Your task to perform on an android device: Open calendar and show me the second week of next month Image 0: 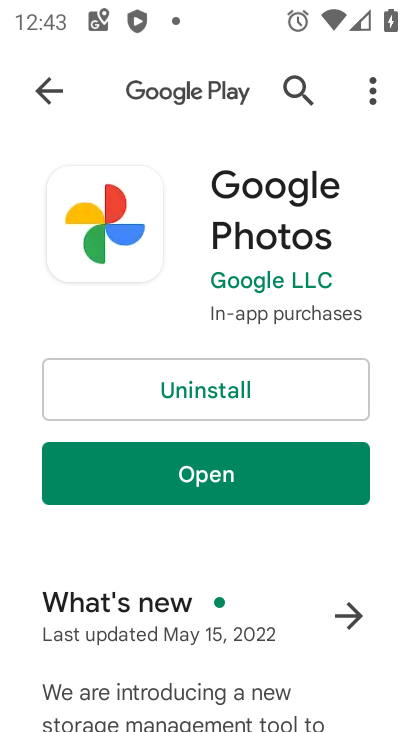
Step 0: press home button
Your task to perform on an android device: Open calendar and show me the second week of next month Image 1: 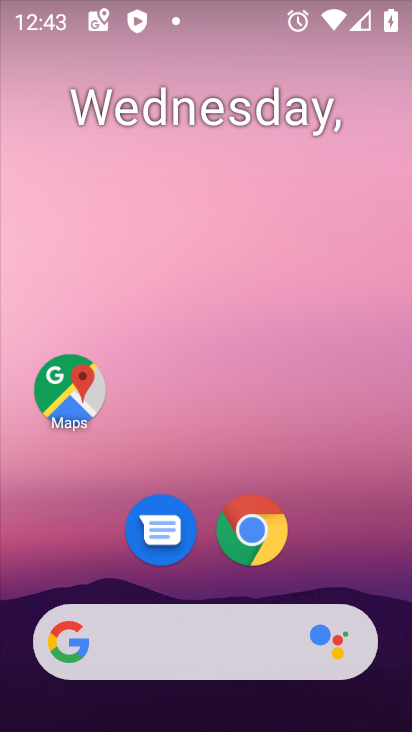
Step 1: drag from (207, 567) to (250, 206)
Your task to perform on an android device: Open calendar and show me the second week of next month Image 2: 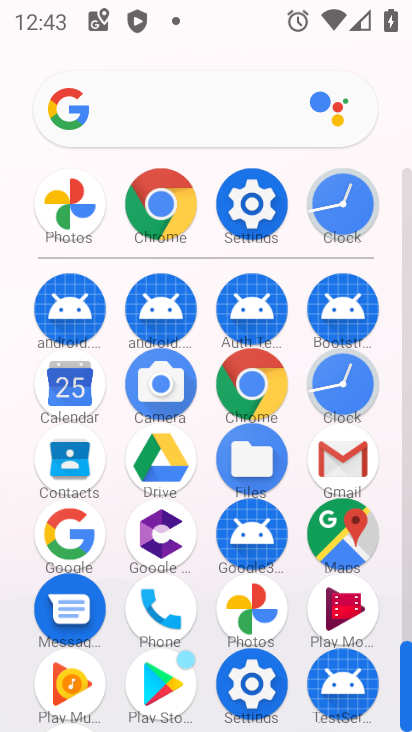
Step 2: click (69, 377)
Your task to perform on an android device: Open calendar and show me the second week of next month Image 3: 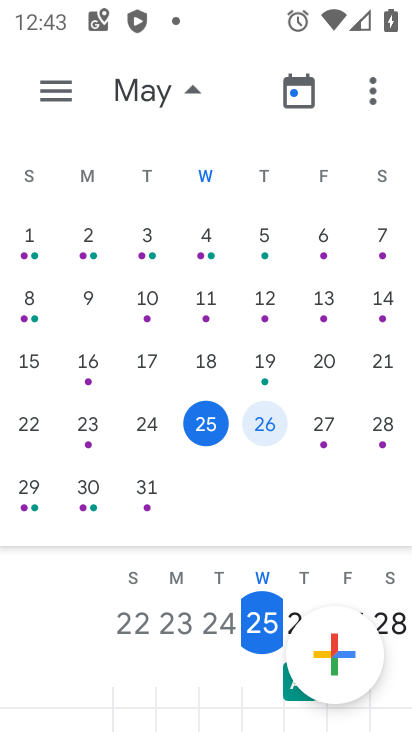
Step 3: drag from (392, 281) to (5, 277)
Your task to perform on an android device: Open calendar and show me the second week of next month Image 4: 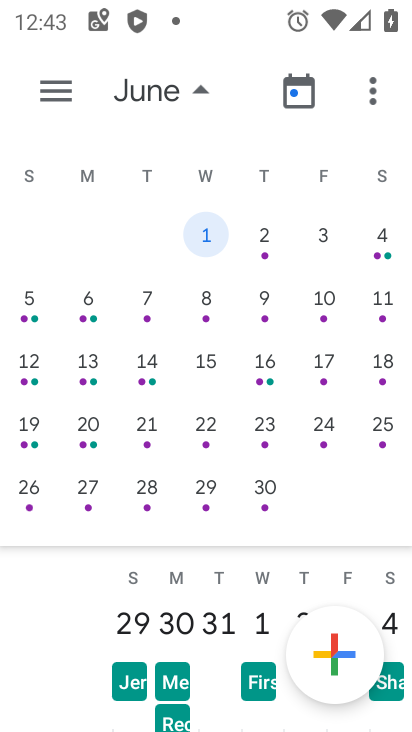
Step 4: click (139, 298)
Your task to perform on an android device: Open calendar and show me the second week of next month Image 5: 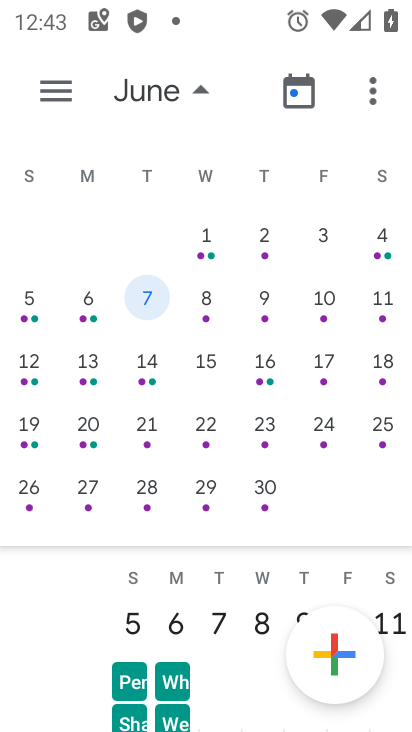
Step 5: click (200, 298)
Your task to perform on an android device: Open calendar and show me the second week of next month Image 6: 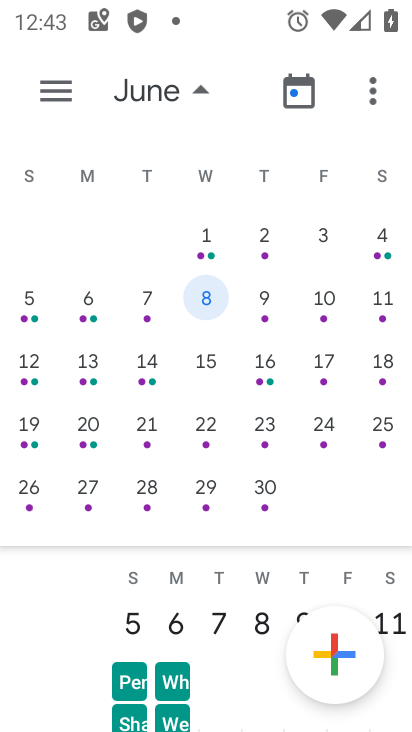
Step 6: click (259, 299)
Your task to perform on an android device: Open calendar and show me the second week of next month Image 7: 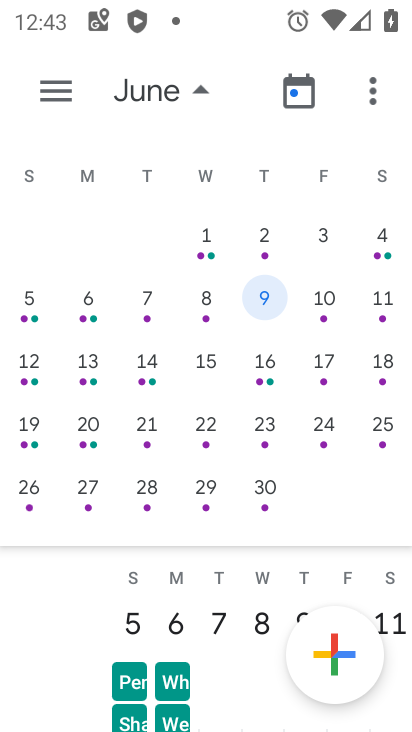
Step 7: click (331, 291)
Your task to perform on an android device: Open calendar and show me the second week of next month Image 8: 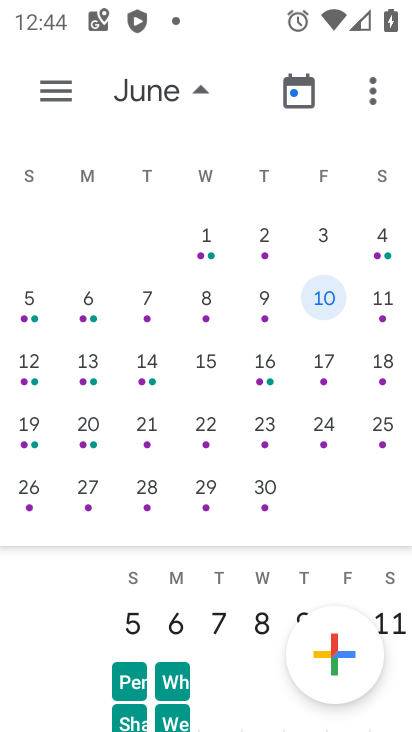
Step 8: click (390, 296)
Your task to perform on an android device: Open calendar and show me the second week of next month Image 9: 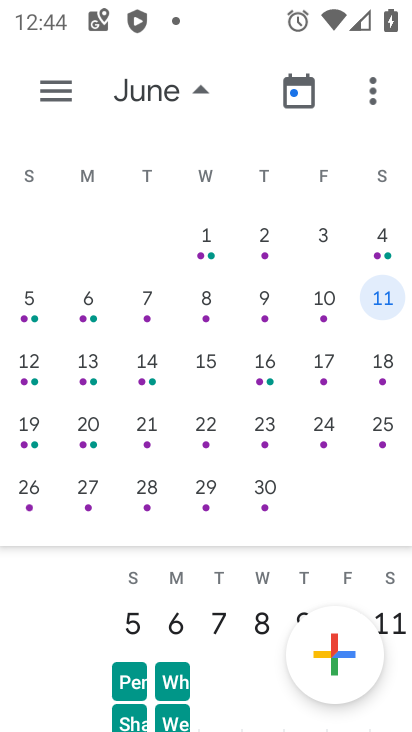
Step 9: click (33, 312)
Your task to perform on an android device: Open calendar and show me the second week of next month Image 10: 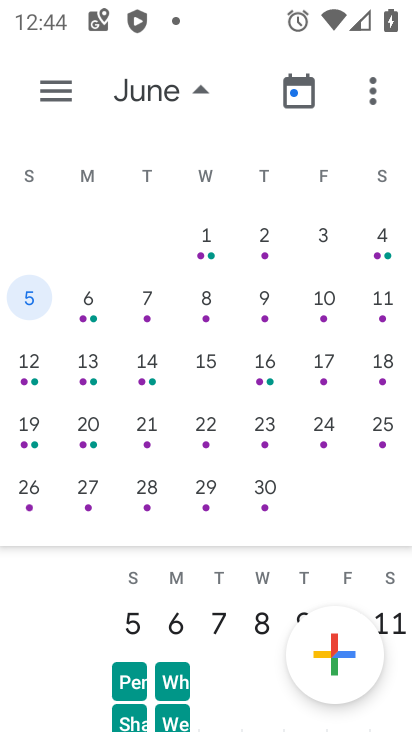
Step 10: click (95, 305)
Your task to perform on an android device: Open calendar and show me the second week of next month Image 11: 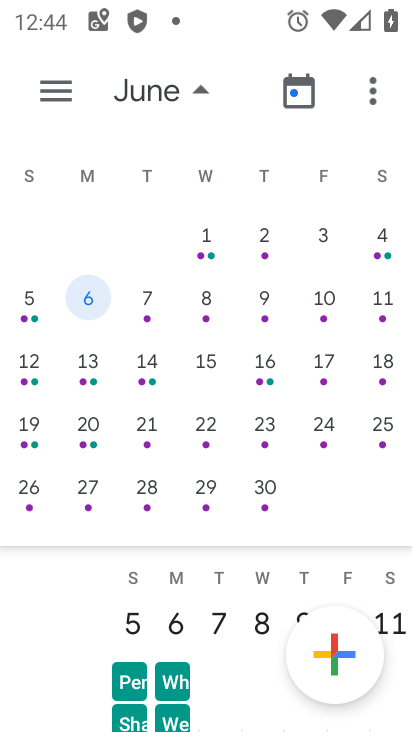
Step 11: task complete